Your task to perform on an android device: Do I have any events tomorrow? Image 0: 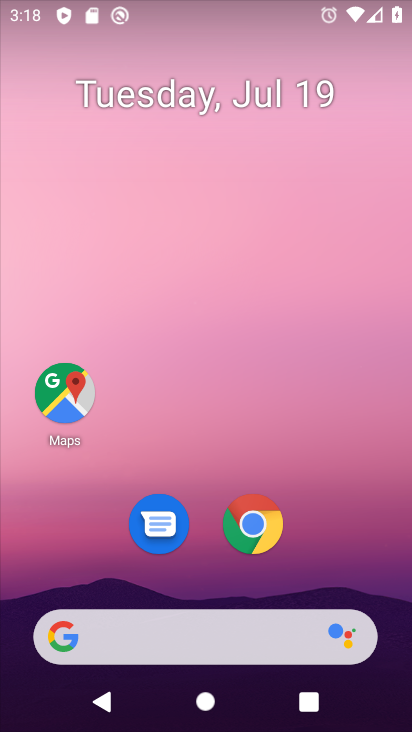
Step 0: drag from (320, 539) to (213, 49)
Your task to perform on an android device: Do I have any events tomorrow? Image 1: 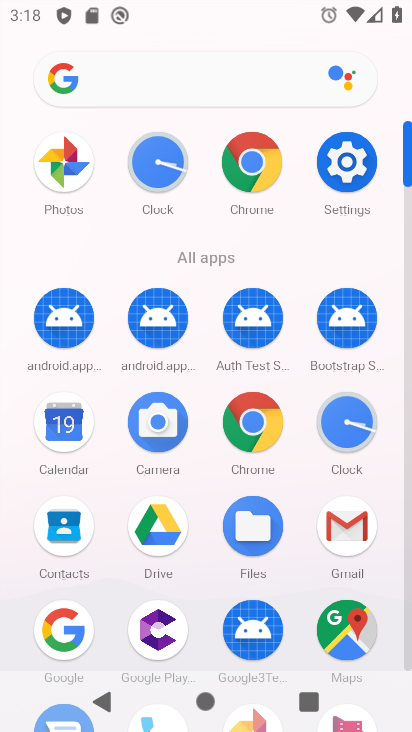
Step 1: click (61, 424)
Your task to perform on an android device: Do I have any events tomorrow? Image 2: 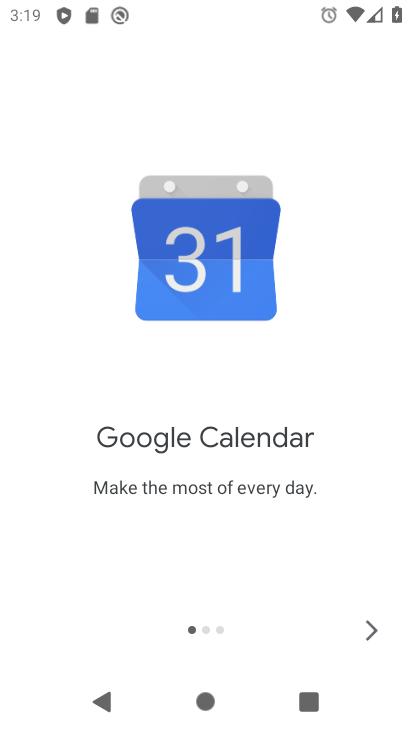
Step 2: click (365, 627)
Your task to perform on an android device: Do I have any events tomorrow? Image 3: 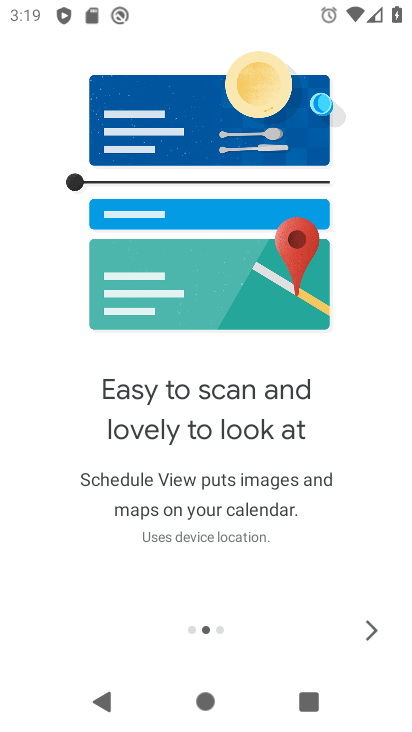
Step 3: click (366, 627)
Your task to perform on an android device: Do I have any events tomorrow? Image 4: 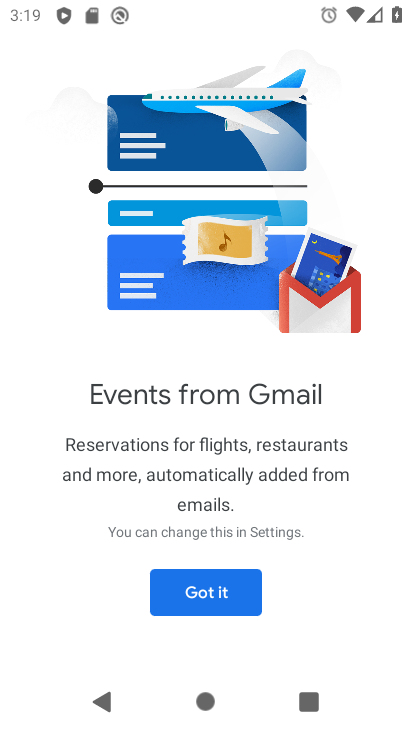
Step 4: click (249, 594)
Your task to perform on an android device: Do I have any events tomorrow? Image 5: 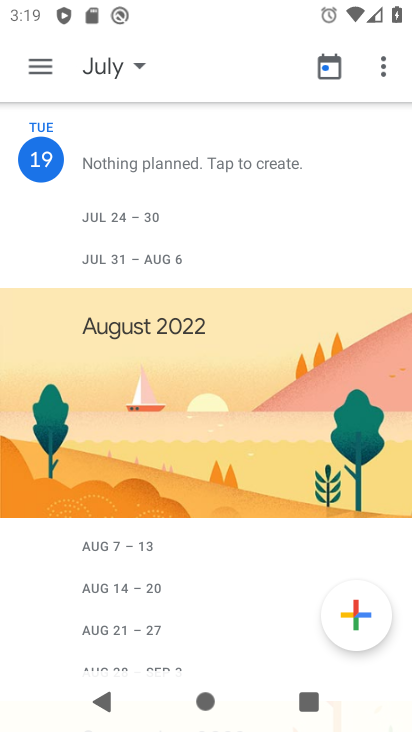
Step 5: click (38, 57)
Your task to perform on an android device: Do I have any events tomorrow? Image 6: 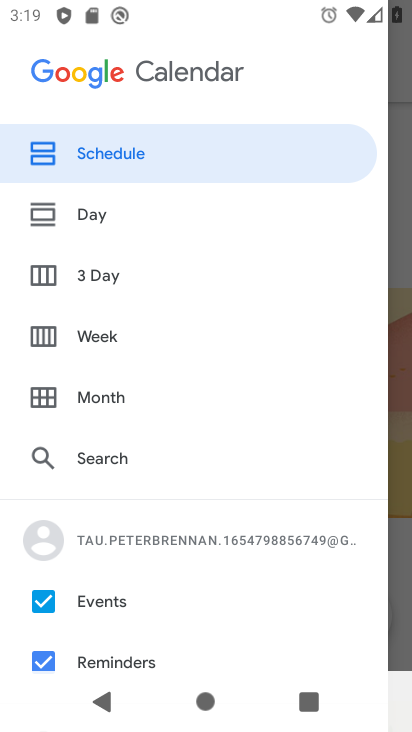
Step 6: click (37, 329)
Your task to perform on an android device: Do I have any events tomorrow? Image 7: 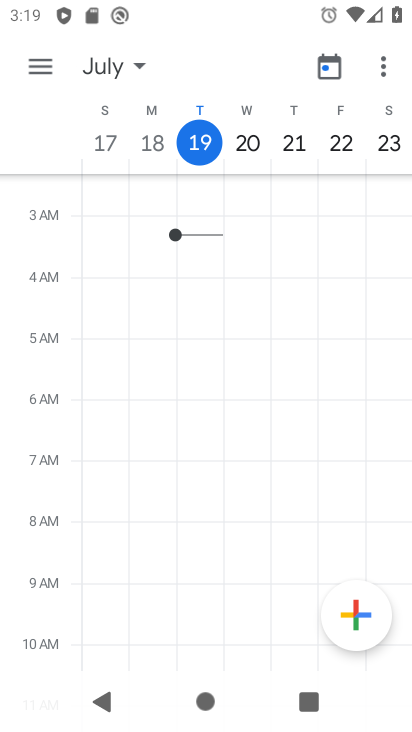
Step 7: task complete